Your task to perform on an android device: turn on airplane mode Image 0: 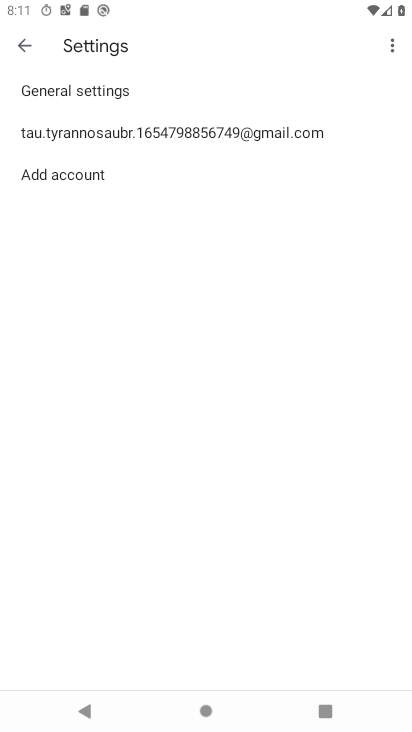
Step 0: click (21, 39)
Your task to perform on an android device: turn on airplane mode Image 1: 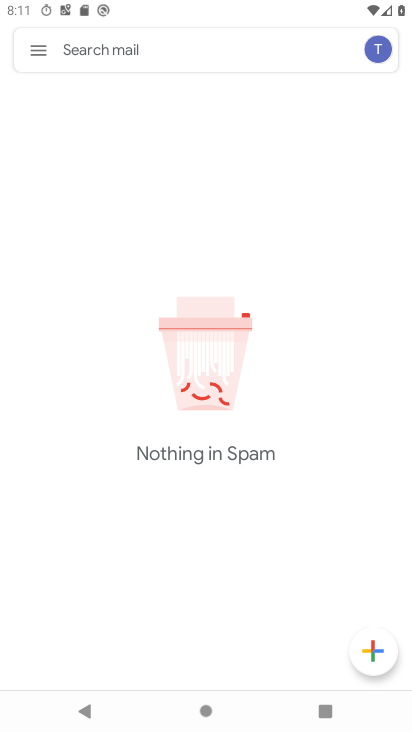
Step 1: click (29, 47)
Your task to perform on an android device: turn on airplane mode Image 2: 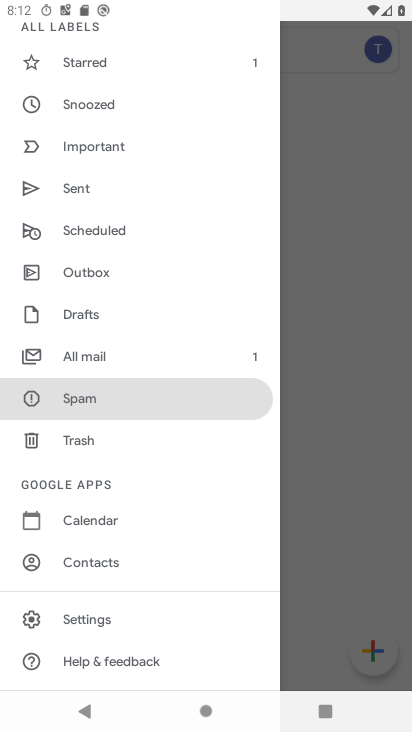
Step 2: click (308, 407)
Your task to perform on an android device: turn on airplane mode Image 3: 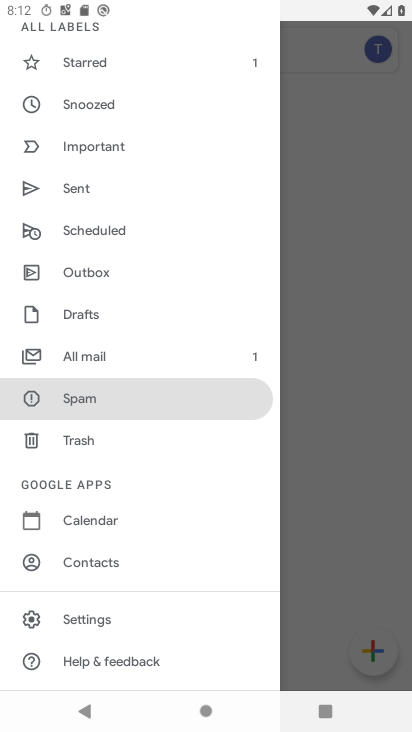
Step 3: click (313, 406)
Your task to perform on an android device: turn on airplane mode Image 4: 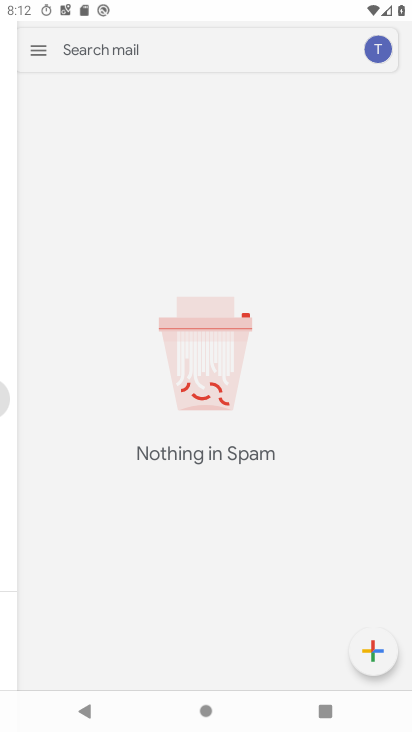
Step 4: click (316, 408)
Your task to perform on an android device: turn on airplane mode Image 5: 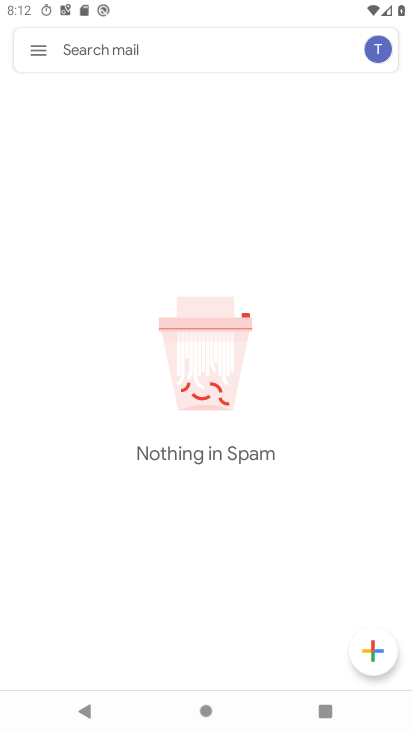
Step 5: click (312, 412)
Your task to perform on an android device: turn on airplane mode Image 6: 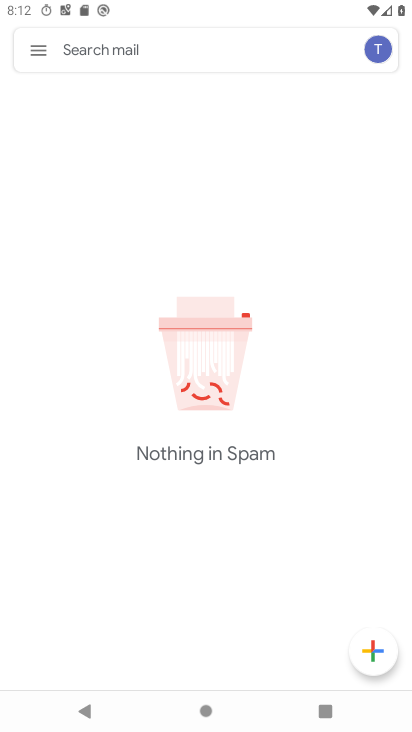
Step 6: press back button
Your task to perform on an android device: turn on airplane mode Image 7: 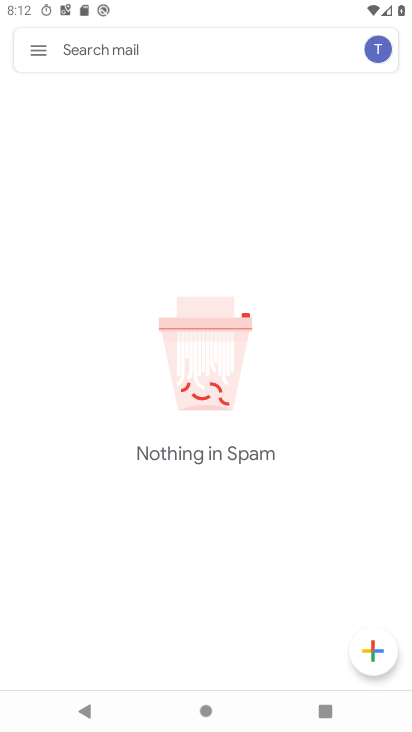
Step 7: press back button
Your task to perform on an android device: turn on airplane mode Image 8: 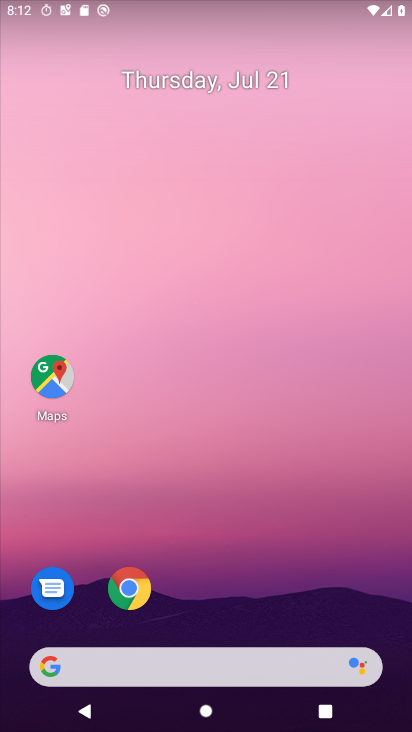
Step 8: drag from (233, 488) to (233, 205)
Your task to perform on an android device: turn on airplane mode Image 9: 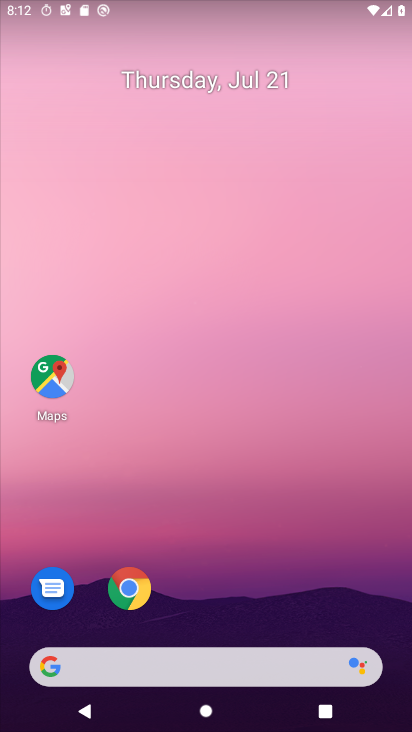
Step 9: drag from (275, 644) to (239, 137)
Your task to perform on an android device: turn on airplane mode Image 10: 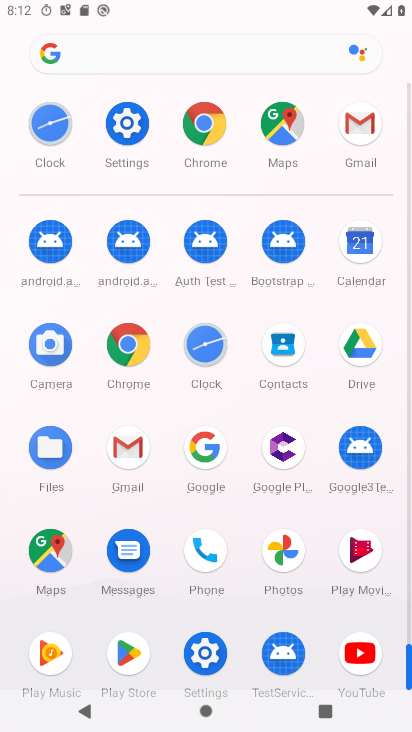
Step 10: click (127, 123)
Your task to perform on an android device: turn on airplane mode Image 11: 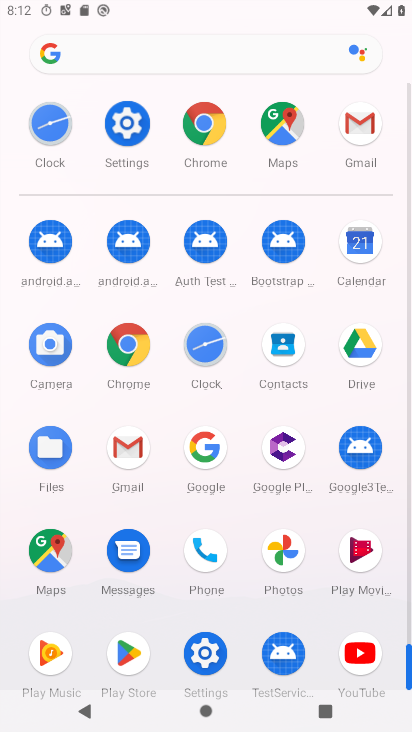
Step 11: click (127, 123)
Your task to perform on an android device: turn on airplane mode Image 12: 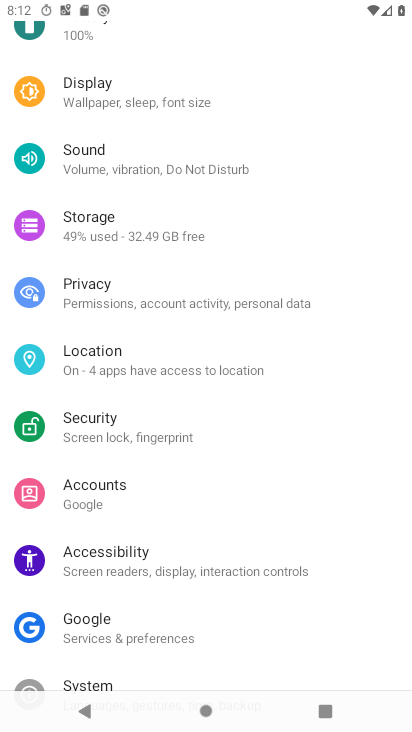
Step 12: drag from (133, 124) to (86, 481)
Your task to perform on an android device: turn on airplane mode Image 13: 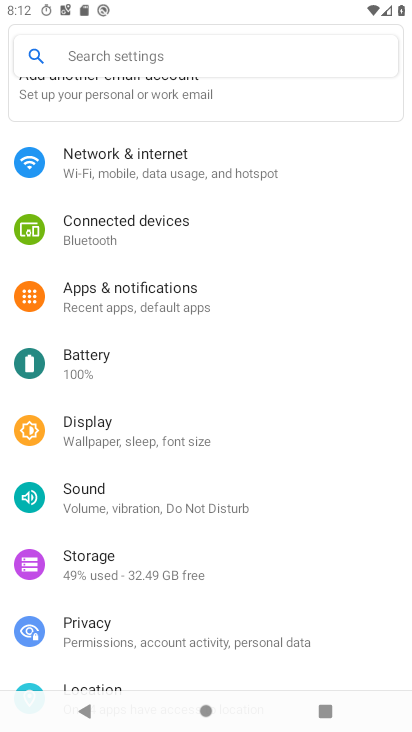
Step 13: drag from (123, 219) to (116, 560)
Your task to perform on an android device: turn on airplane mode Image 14: 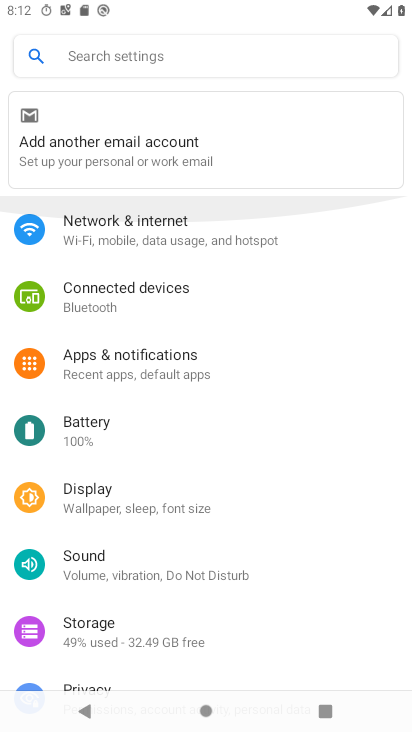
Step 14: drag from (160, 165) to (111, 623)
Your task to perform on an android device: turn on airplane mode Image 15: 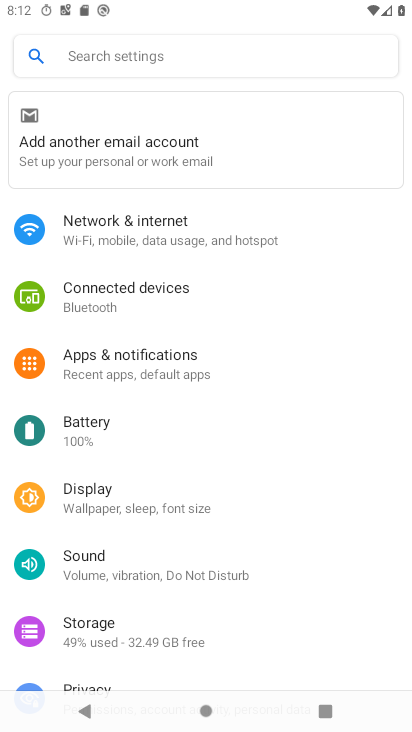
Step 15: click (156, 227)
Your task to perform on an android device: turn on airplane mode Image 16: 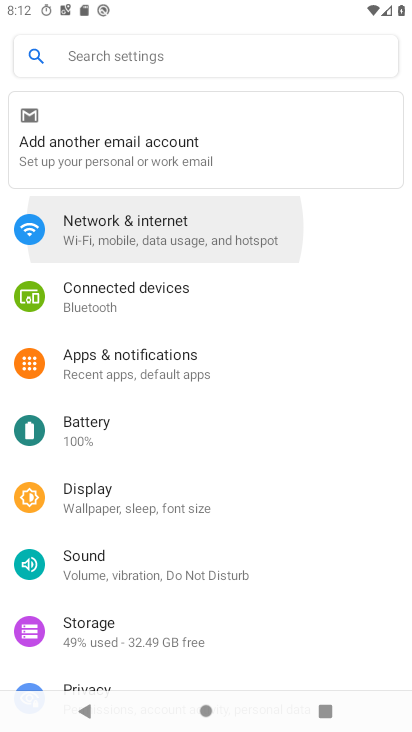
Step 16: click (155, 228)
Your task to perform on an android device: turn on airplane mode Image 17: 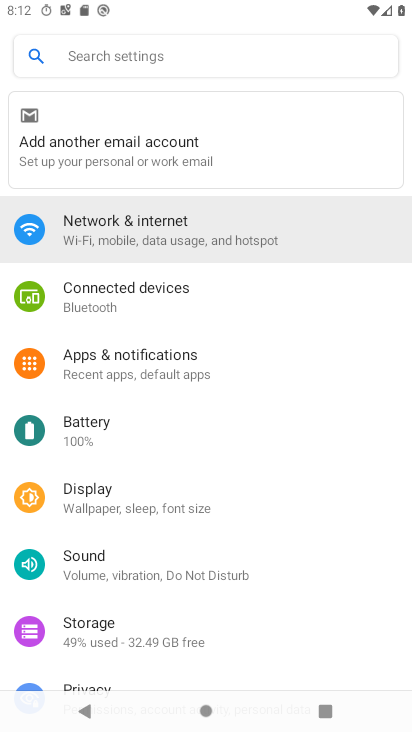
Step 17: click (155, 229)
Your task to perform on an android device: turn on airplane mode Image 18: 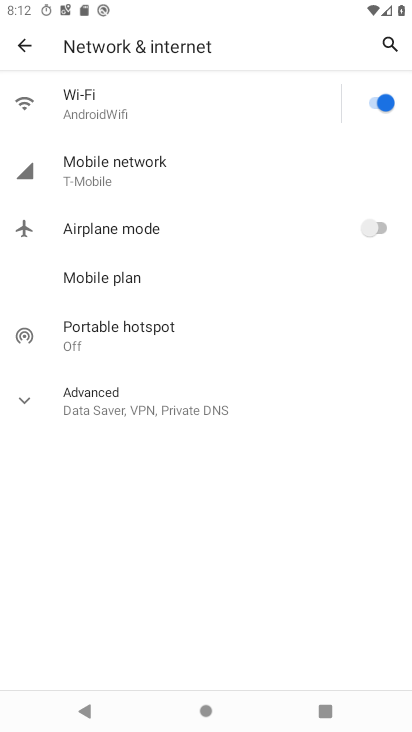
Step 18: click (367, 221)
Your task to perform on an android device: turn on airplane mode Image 19: 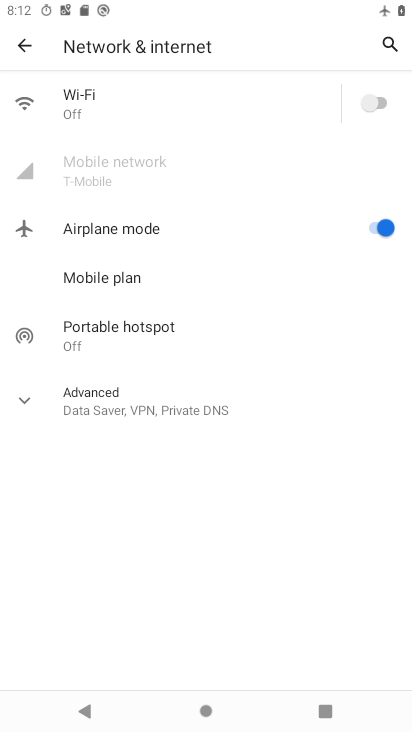
Step 19: task complete